Your task to perform on an android device: Go to Maps Image 0: 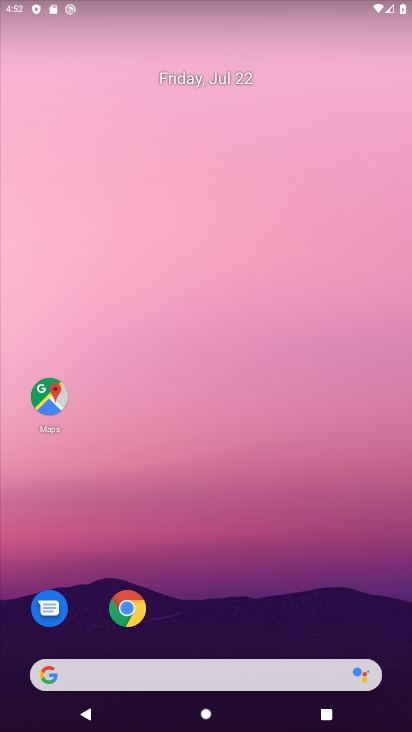
Step 0: click (51, 400)
Your task to perform on an android device: Go to Maps Image 1: 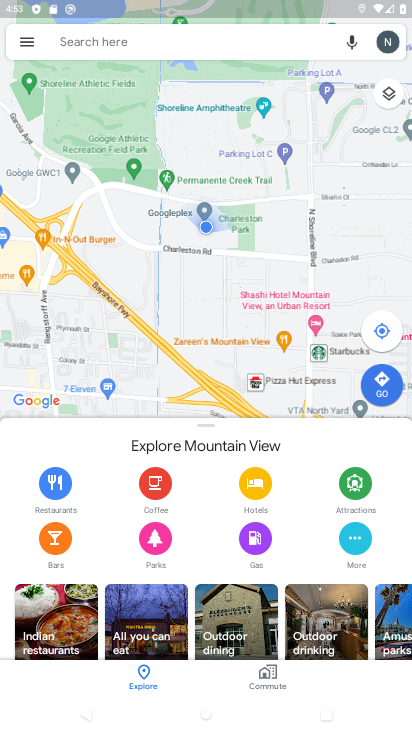
Step 1: task complete